Your task to perform on an android device: toggle pop-ups in chrome Image 0: 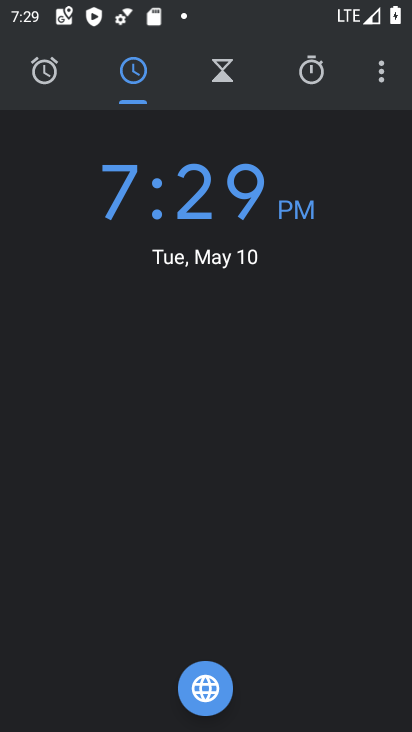
Step 0: press home button
Your task to perform on an android device: toggle pop-ups in chrome Image 1: 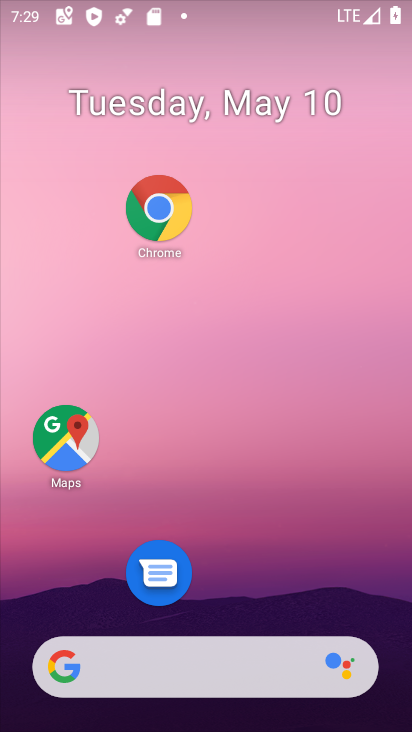
Step 1: drag from (310, 674) to (279, 318)
Your task to perform on an android device: toggle pop-ups in chrome Image 2: 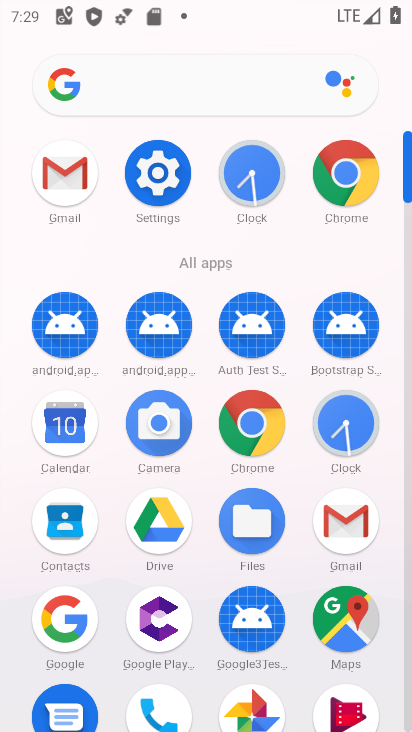
Step 2: click (368, 164)
Your task to perform on an android device: toggle pop-ups in chrome Image 3: 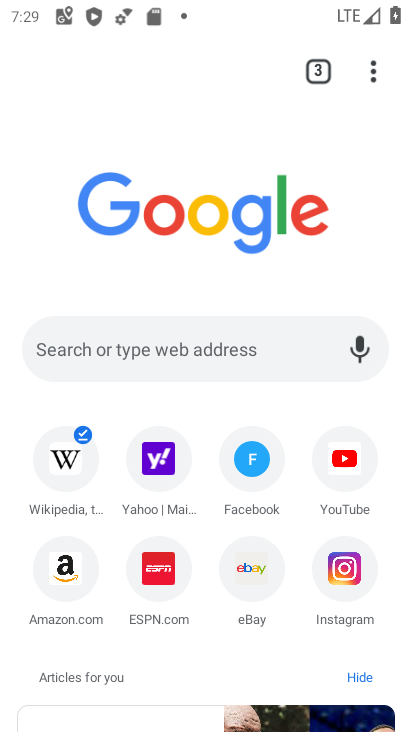
Step 3: click (373, 96)
Your task to perform on an android device: toggle pop-ups in chrome Image 4: 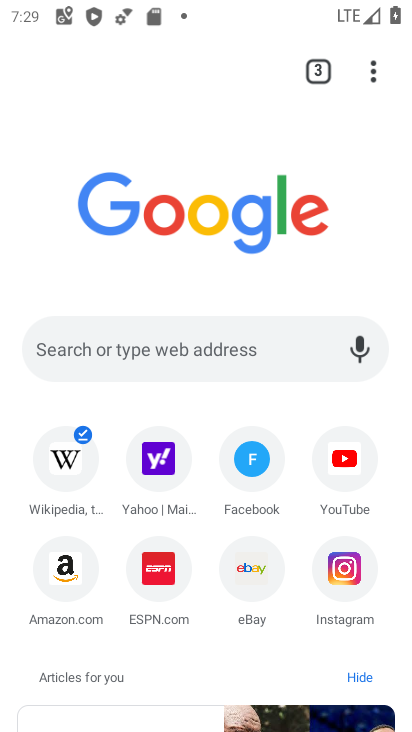
Step 4: click (378, 83)
Your task to perform on an android device: toggle pop-ups in chrome Image 5: 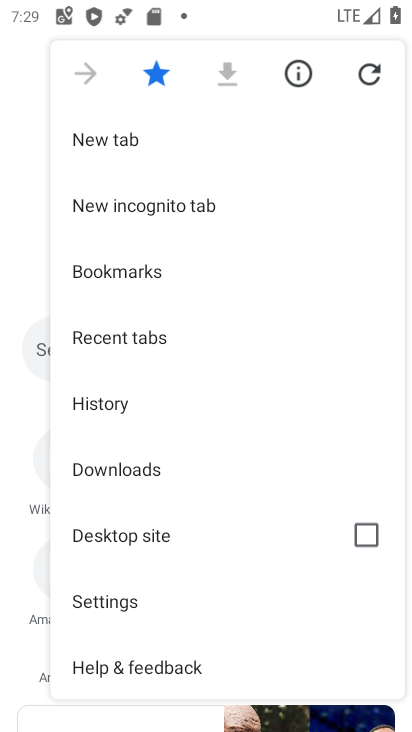
Step 5: click (143, 602)
Your task to perform on an android device: toggle pop-ups in chrome Image 6: 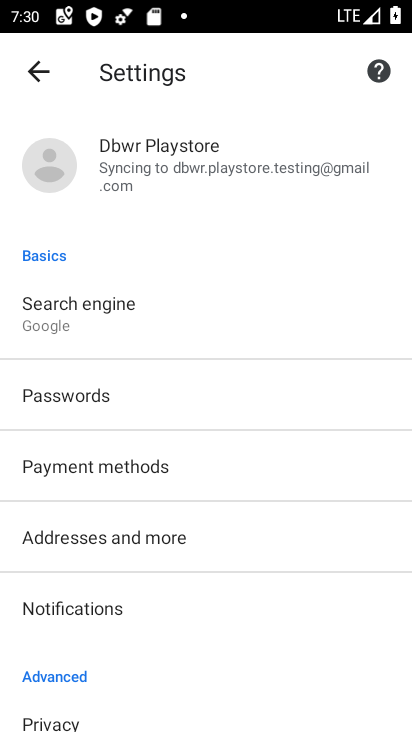
Step 6: drag from (177, 632) to (177, 360)
Your task to perform on an android device: toggle pop-ups in chrome Image 7: 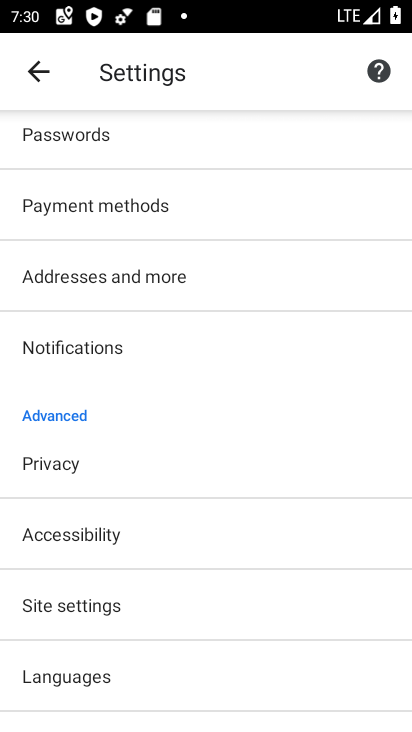
Step 7: click (120, 609)
Your task to perform on an android device: toggle pop-ups in chrome Image 8: 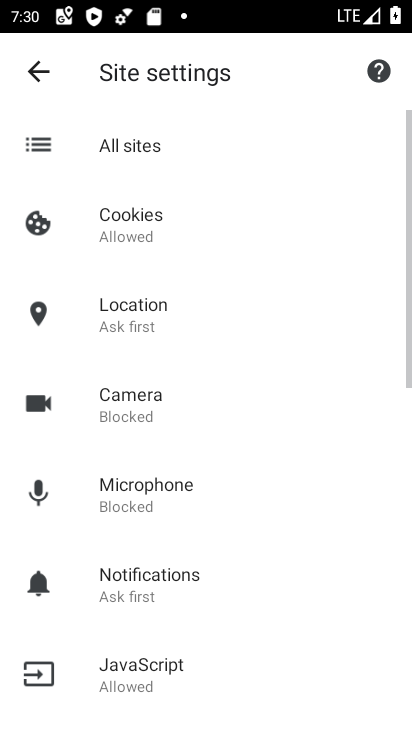
Step 8: drag from (185, 631) to (217, 511)
Your task to perform on an android device: toggle pop-ups in chrome Image 9: 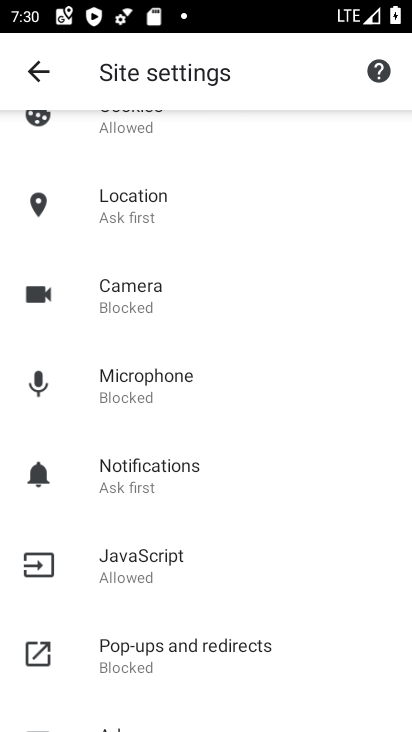
Step 9: click (173, 633)
Your task to perform on an android device: toggle pop-ups in chrome Image 10: 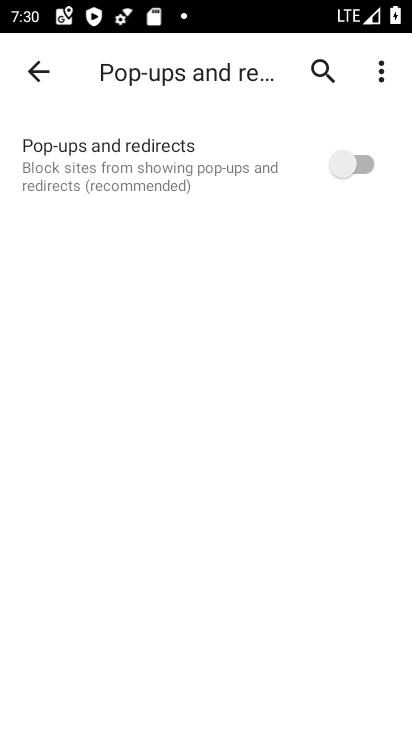
Step 10: task complete